Your task to perform on an android device: Do I have any events today? Image 0: 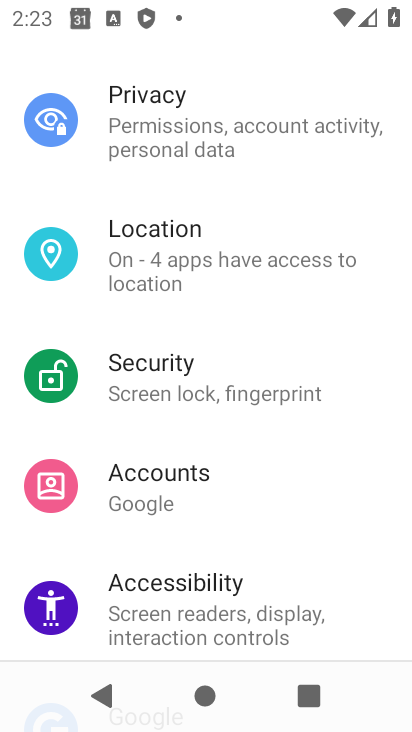
Step 0: press home button
Your task to perform on an android device: Do I have any events today? Image 1: 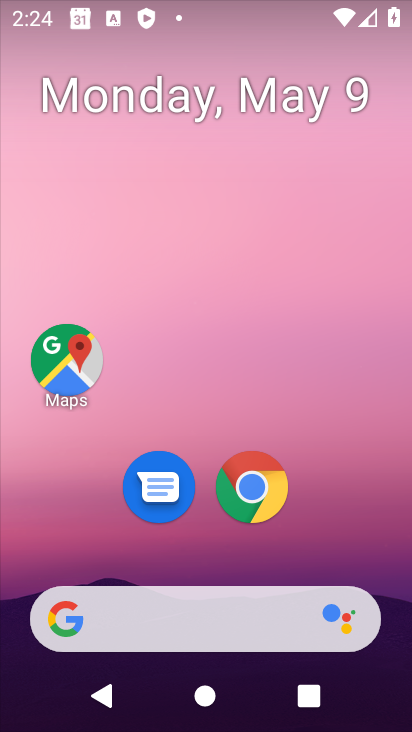
Step 1: drag from (326, 517) to (332, 75)
Your task to perform on an android device: Do I have any events today? Image 2: 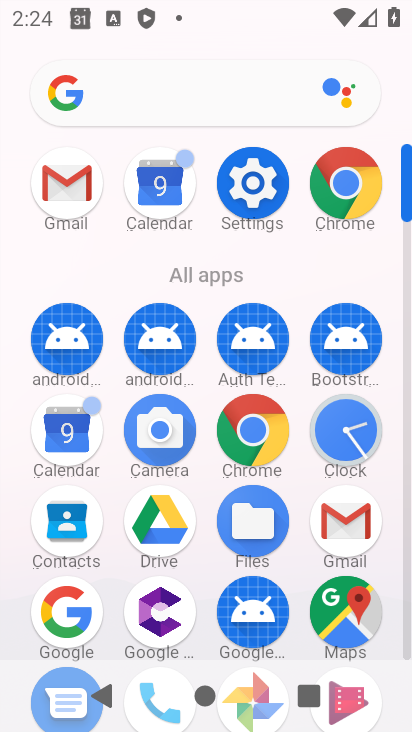
Step 2: click (161, 188)
Your task to perform on an android device: Do I have any events today? Image 3: 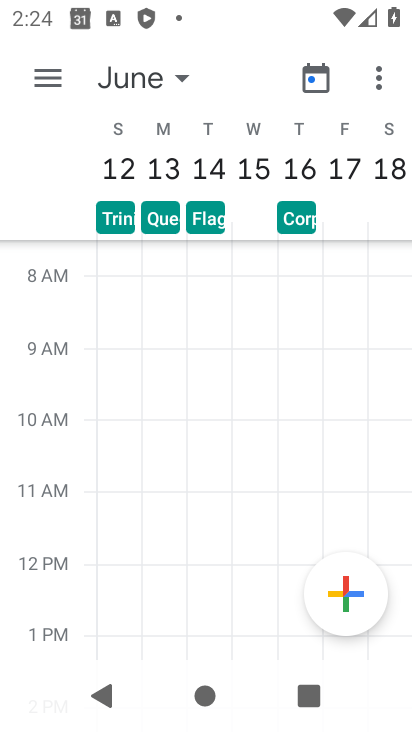
Step 3: click (43, 75)
Your task to perform on an android device: Do I have any events today? Image 4: 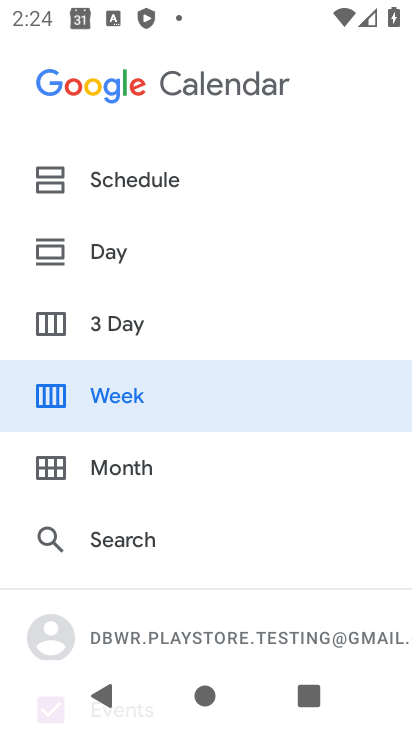
Step 4: click (130, 474)
Your task to perform on an android device: Do I have any events today? Image 5: 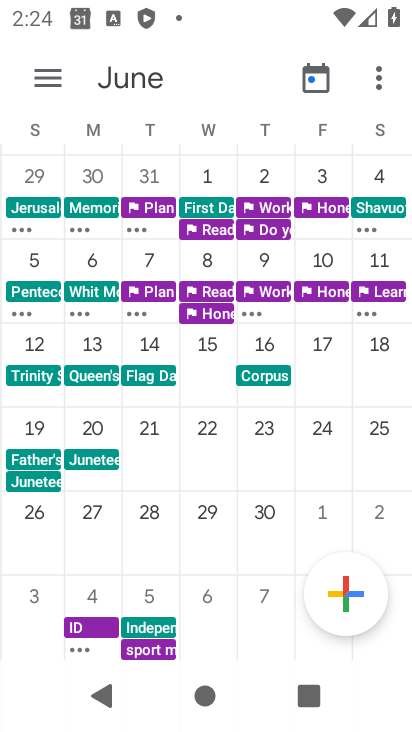
Step 5: drag from (37, 370) to (349, 356)
Your task to perform on an android device: Do I have any events today? Image 6: 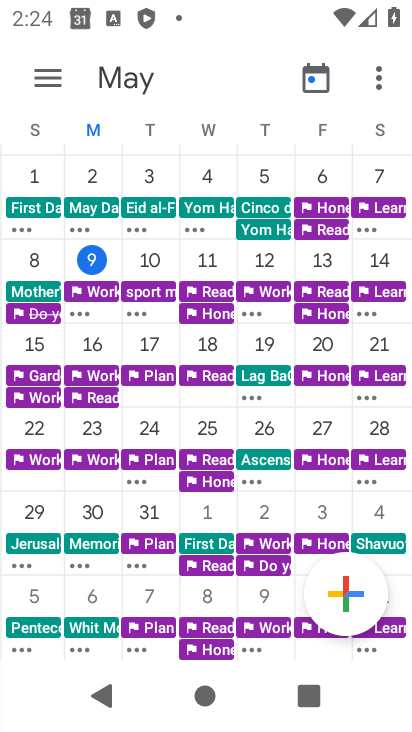
Step 6: click (92, 256)
Your task to perform on an android device: Do I have any events today? Image 7: 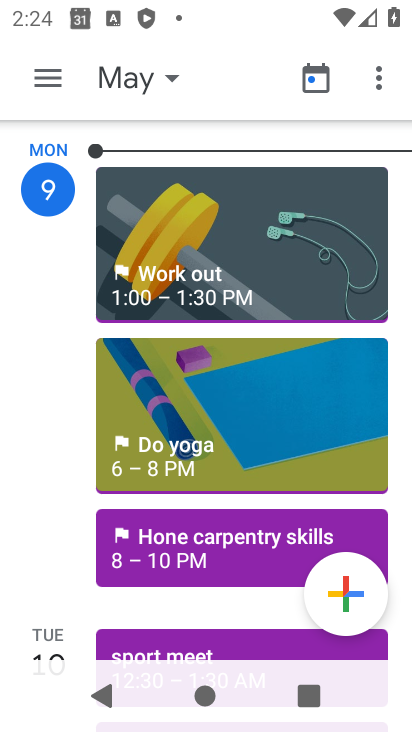
Step 7: task complete